Your task to perform on an android device: Open CNN.com Image 0: 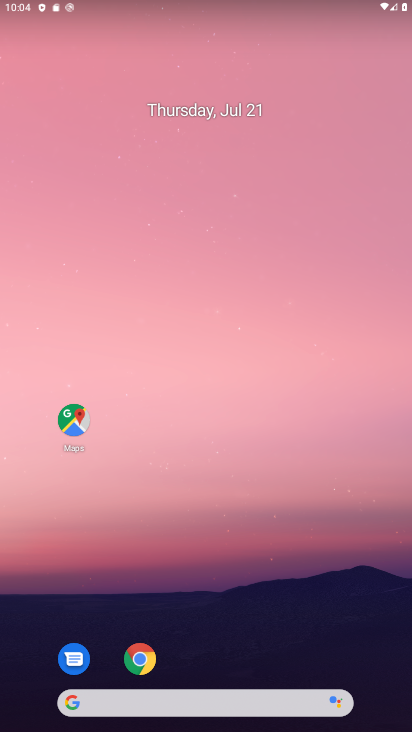
Step 0: click (138, 659)
Your task to perform on an android device: Open CNN.com Image 1: 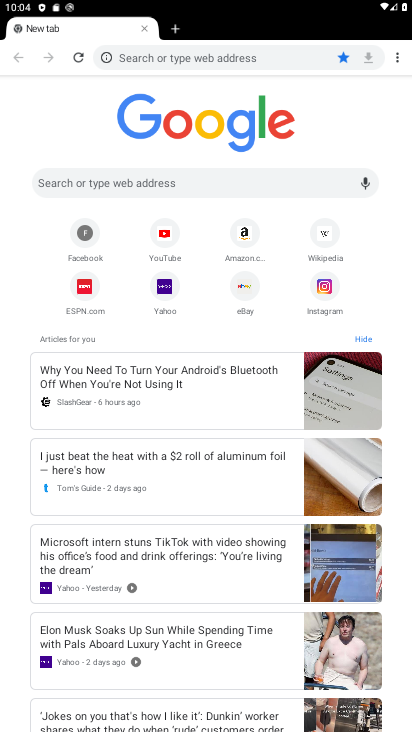
Step 1: click (221, 182)
Your task to perform on an android device: Open CNN.com Image 2: 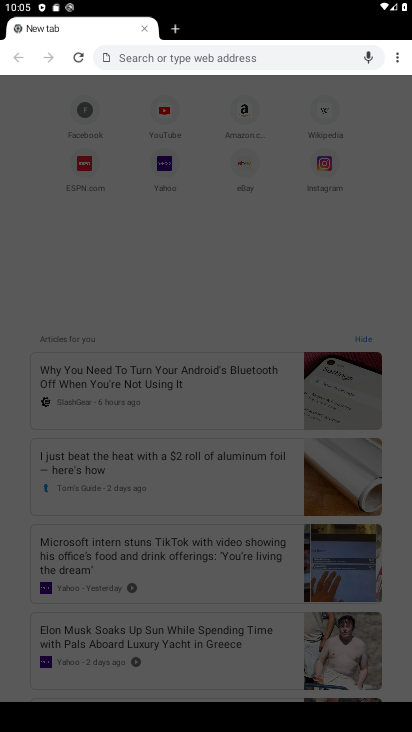
Step 2: type "CNN.com"
Your task to perform on an android device: Open CNN.com Image 3: 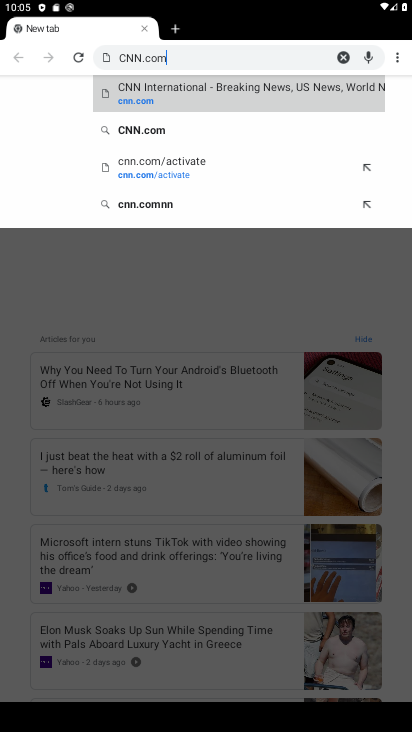
Step 3: click (128, 133)
Your task to perform on an android device: Open CNN.com Image 4: 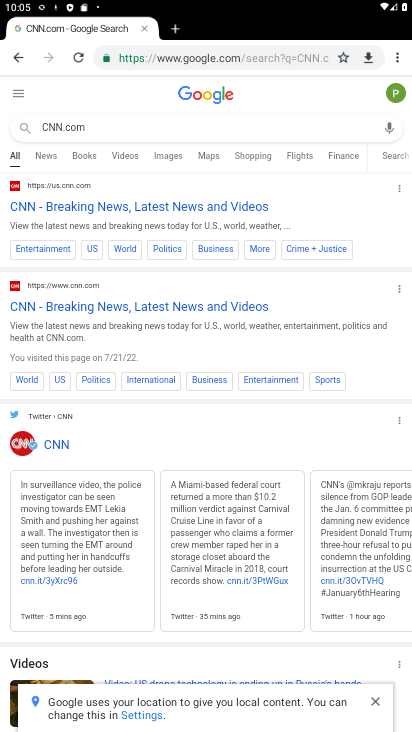
Step 4: click (113, 208)
Your task to perform on an android device: Open CNN.com Image 5: 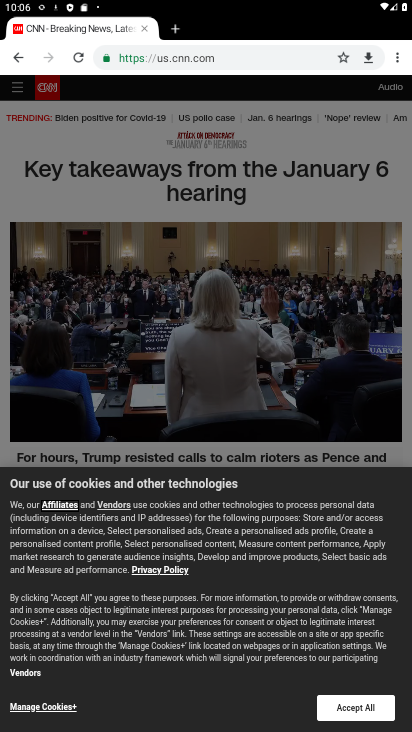
Step 5: task complete